Your task to perform on an android device: Go to Amazon Image 0: 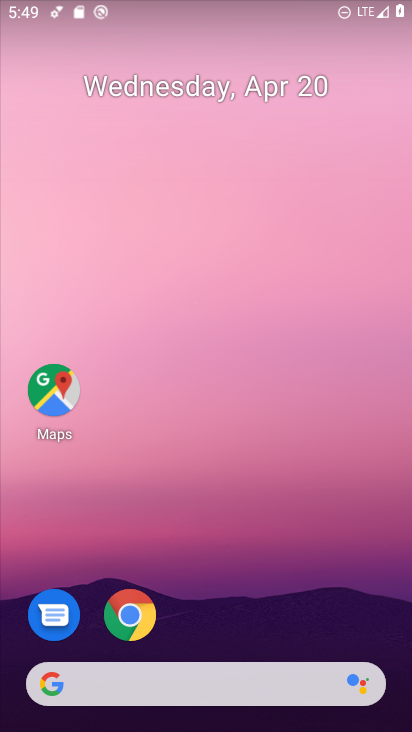
Step 0: click (139, 615)
Your task to perform on an android device: Go to Amazon Image 1: 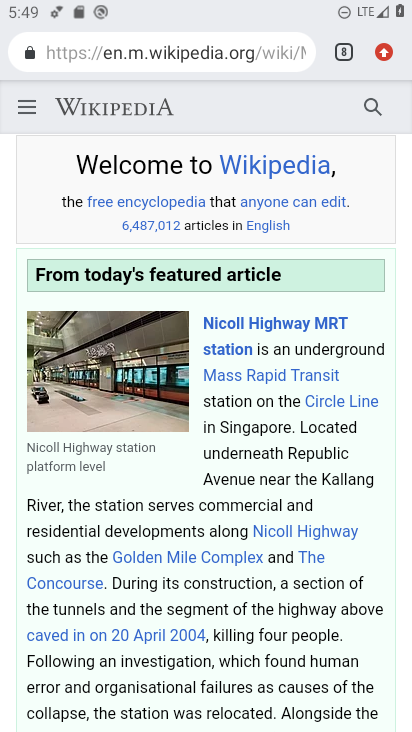
Step 1: click (348, 46)
Your task to perform on an android device: Go to Amazon Image 2: 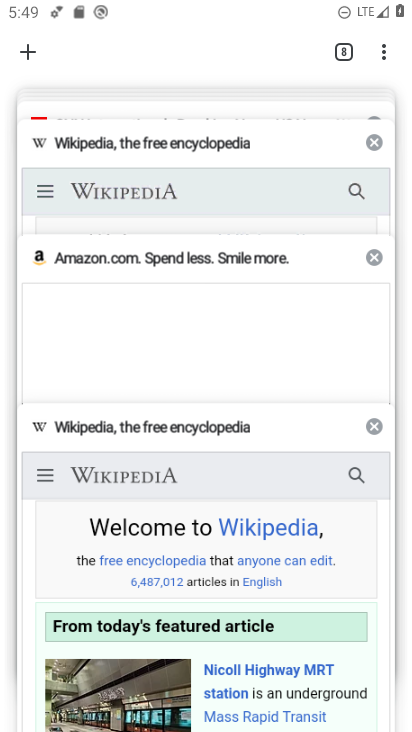
Step 2: click (196, 278)
Your task to perform on an android device: Go to Amazon Image 3: 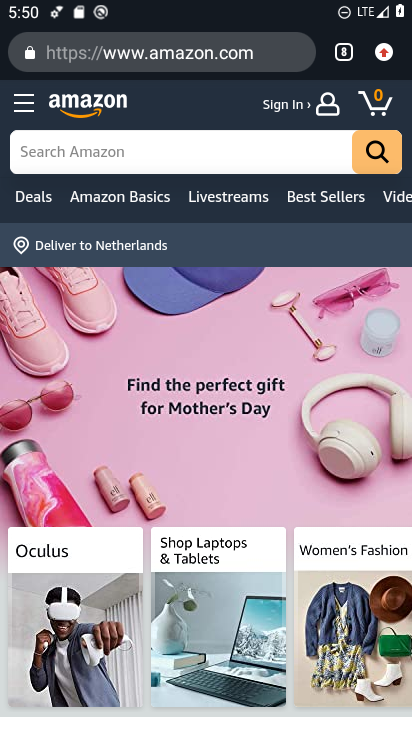
Step 3: task complete